Your task to perform on an android device: open a new tab in the chrome app Image 0: 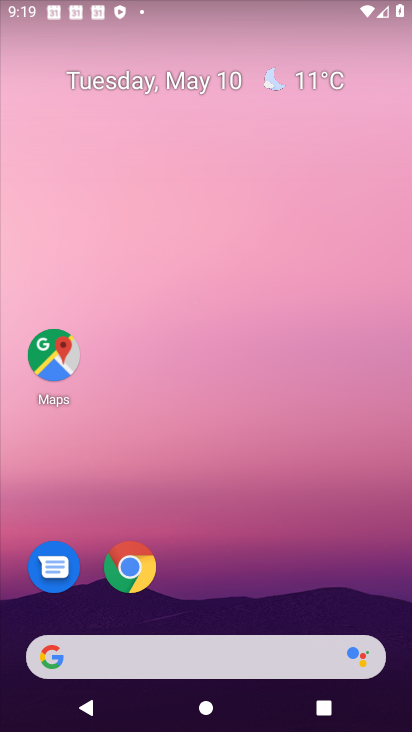
Step 0: click (135, 573)
Your task to perform on an android device: open a new tab in the chrome app Image 1: 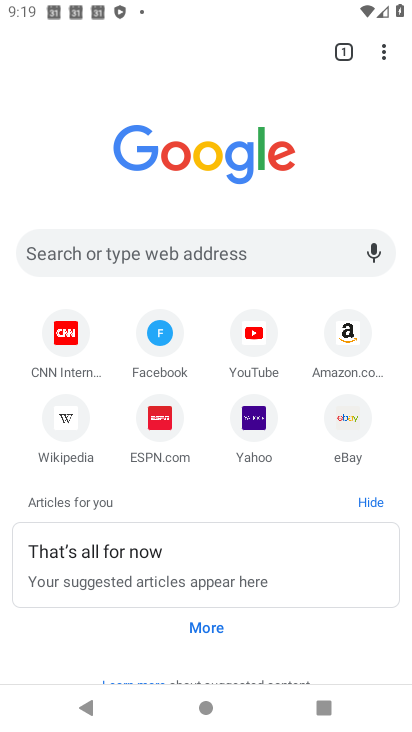
Step 1: click (382, 54)
Your task to perform on an android device: open a new tab in the chrome app Image 2: 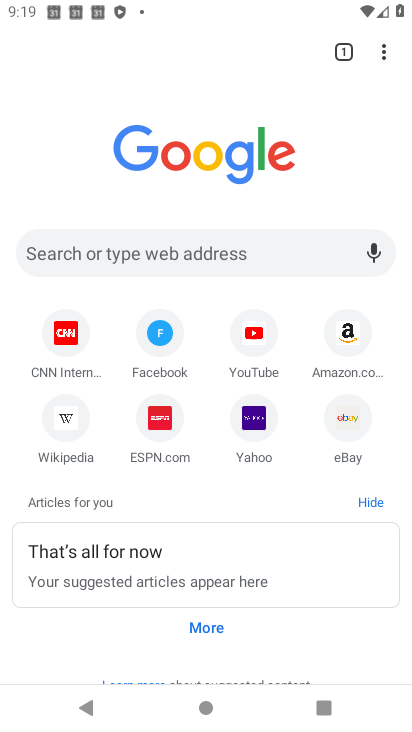
Step 2: click (382, 54)
Your task to perform on an android device: open a new tab in the chrome app Image 3: 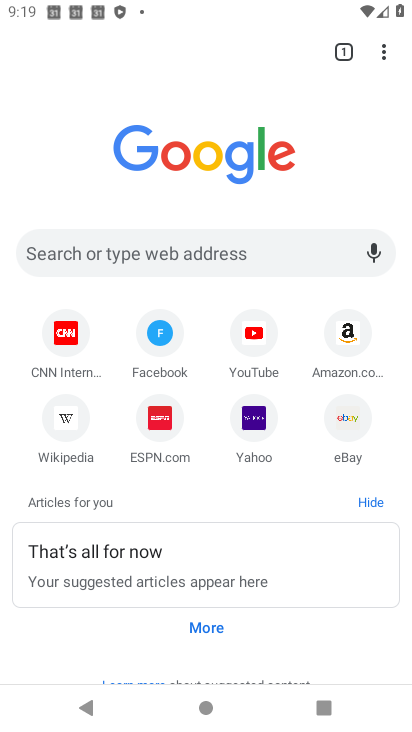
Step 3: click (382, 54)
Your task to perform on an android device: open a new tab in the chrome app Image 4: 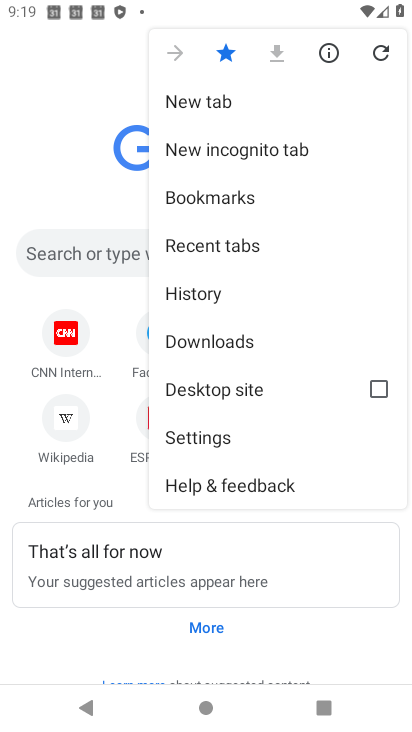
Step 4: click (206, 104)
Your task to perform on an android device: open a new tab in the chrome app Image 5: 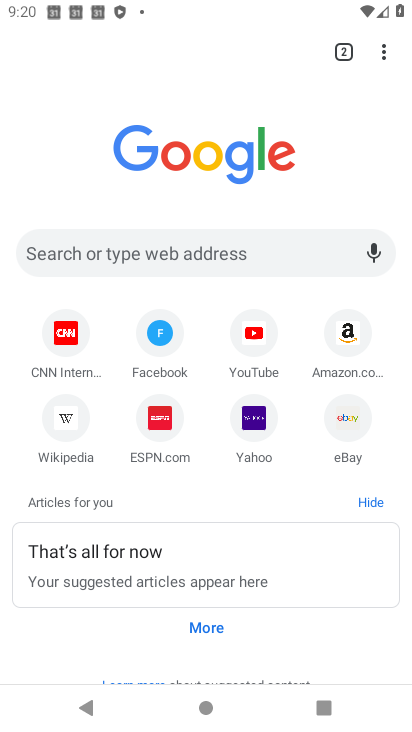
Step 5: click (384, 47)
Your task to perform on an android device: open a new tab in the chrome app Image 6: 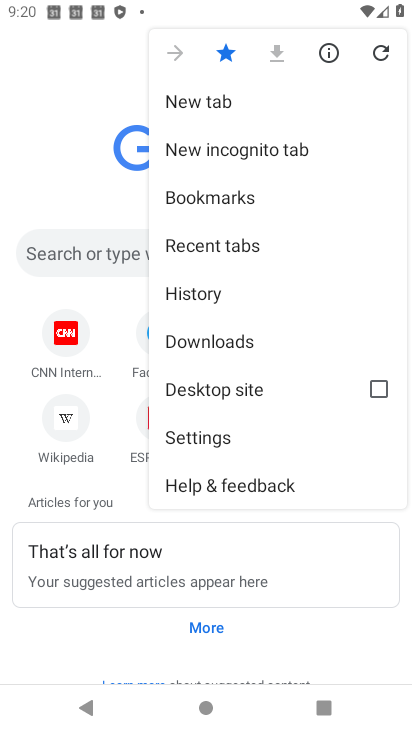
Step 6: click (215, 115)
Your task to perform on an android device: open a new tab in the chrome app Image 7: 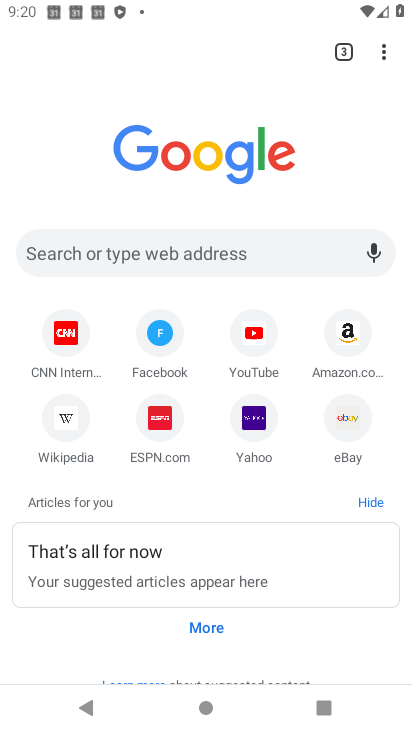
Step 7: task complete